Your task to perform on an android device: Go to Google maps Image 0: 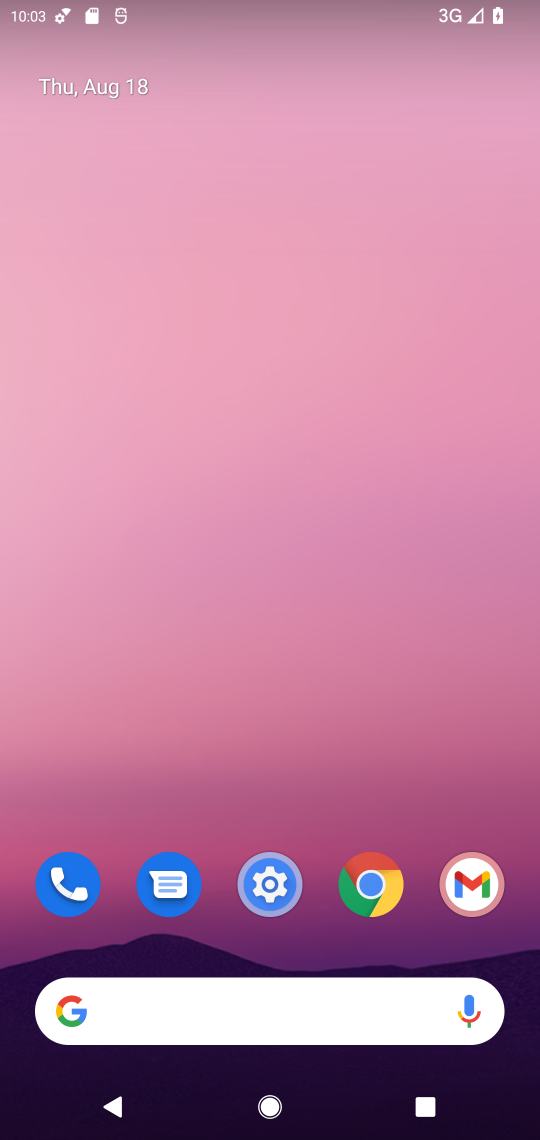
Step 0: drag from (330, 946) to (411, 3)
Your task to perform on an android device: Go to Google maps Image 1: 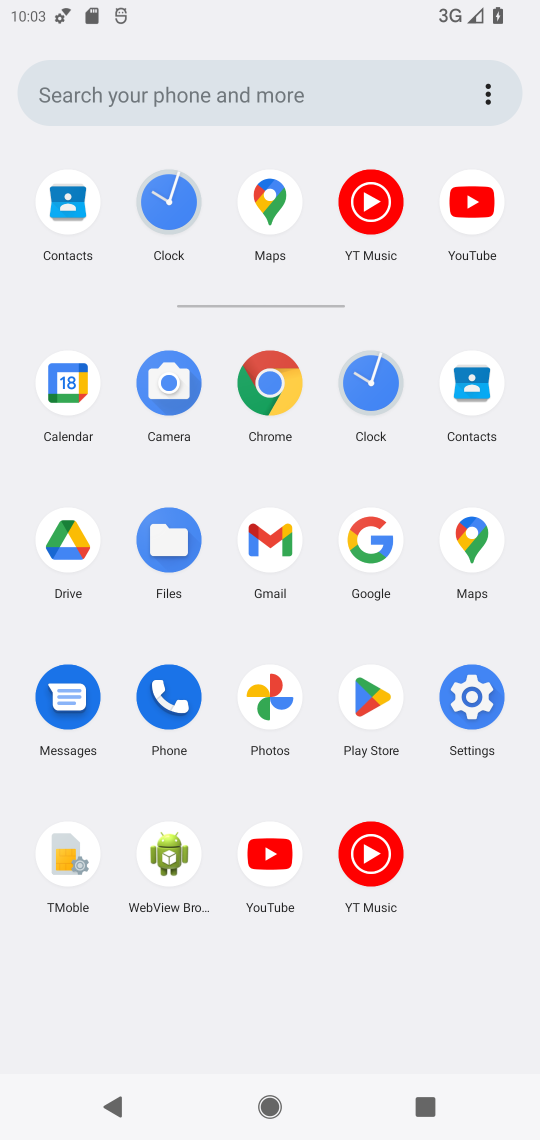
Step 1: click (466, 539)
Your task to perform on an android device: Go to Google maps Image 2: 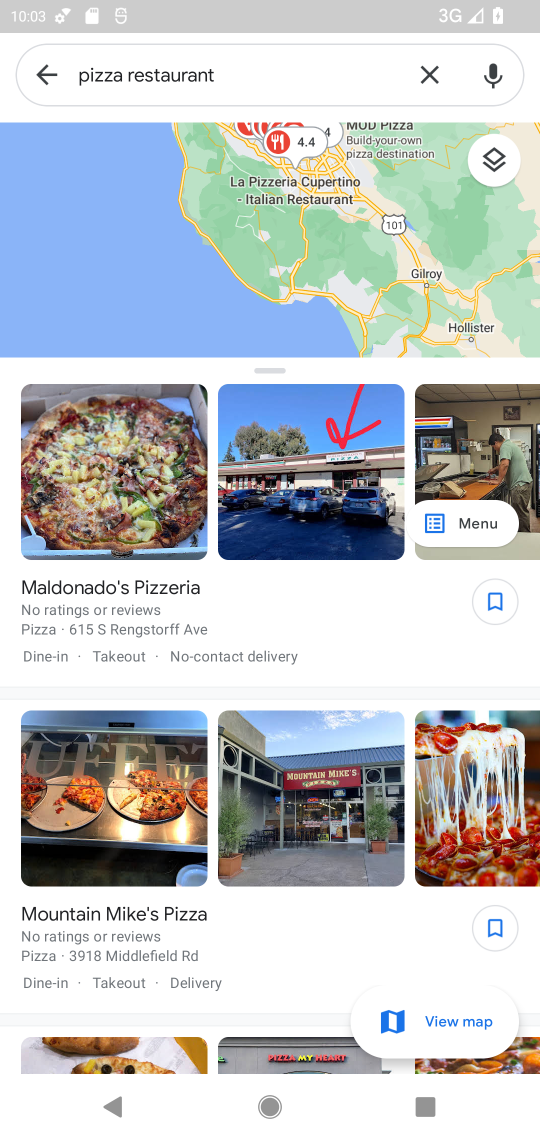
Step 2: task complete